Your task to perform on an android device: open device folders in google photos Image 0: 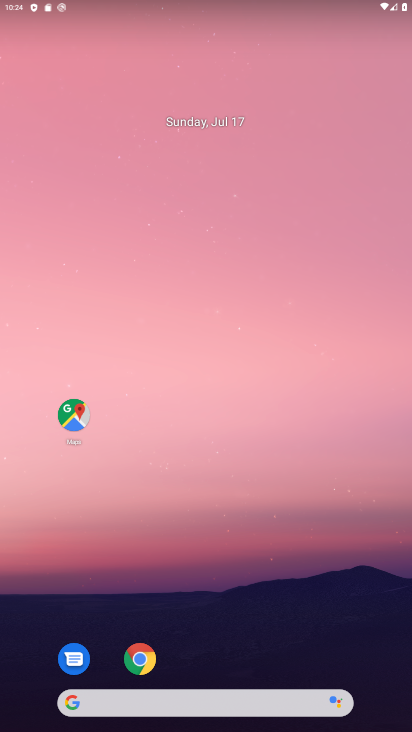
Step 0: drag from (273, 512) to (257, 4)
Your task to perform on an android device: open device folders in google photos Image 1: 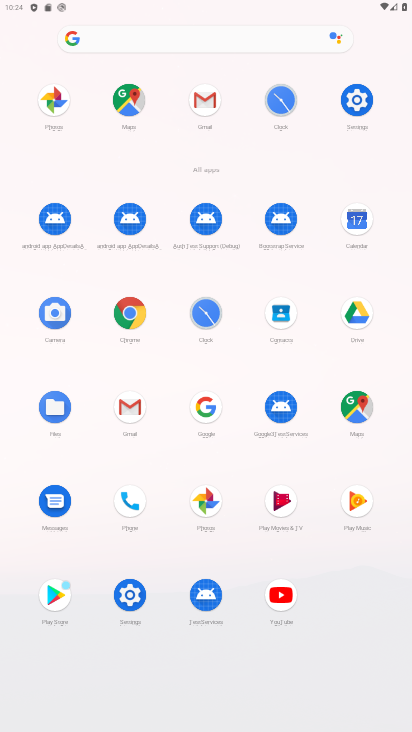
Step 1: click (215, 503)
Your task to perform on an android device: open device folders in google photos Image 2: 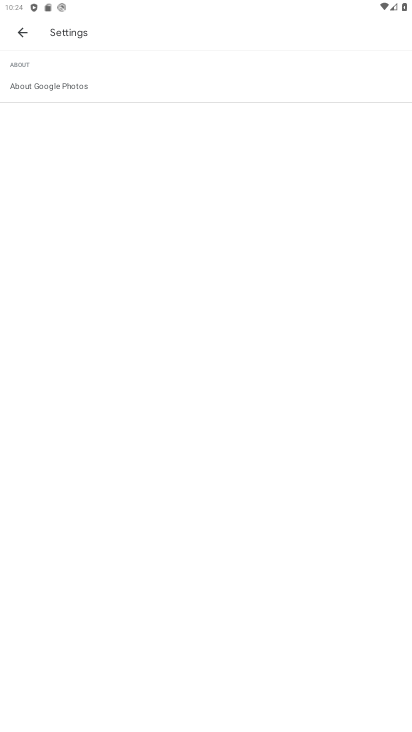
Step 2: click (16, 29)
Your task to perform on an android device: open device folders in google photos Image 3: 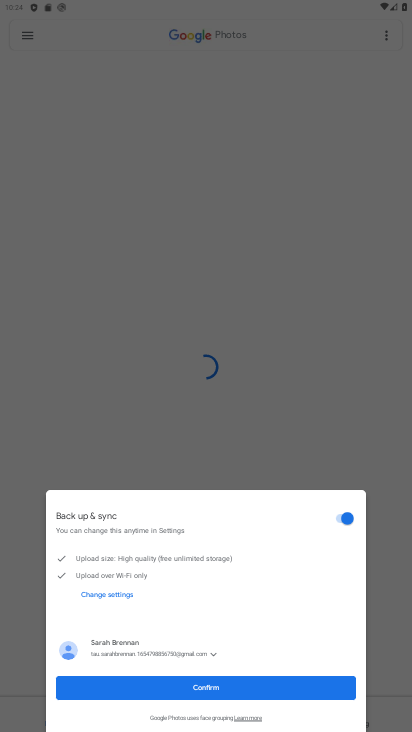
Step 3: click (215, 686)
Your task to perform on an android device: open device folders in google photos Image 4: 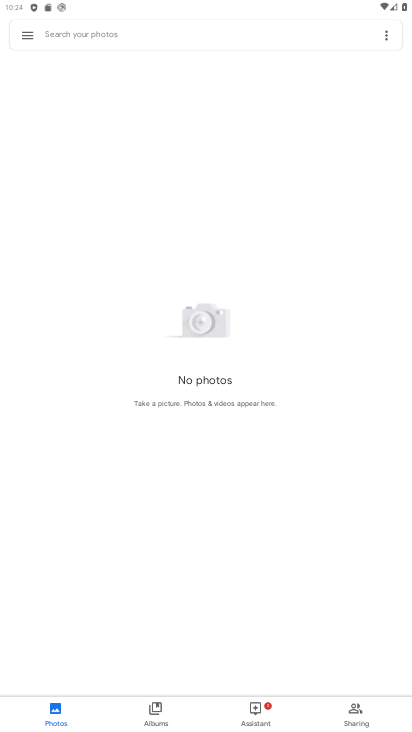
Step 4: click (22, 38)
Your task to perform on an android device: open device folders in google photos Image 5: 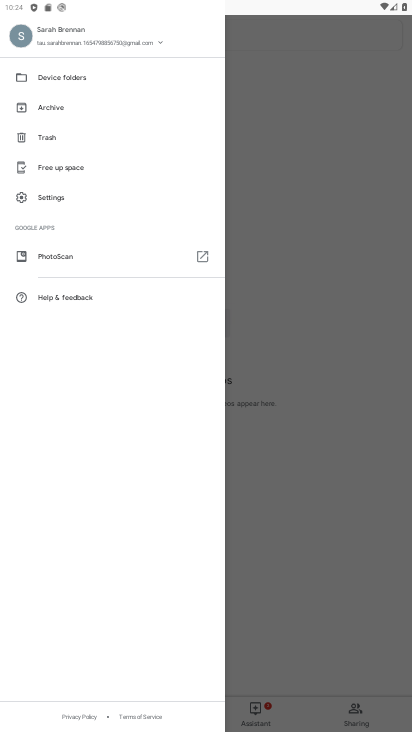
Step 5: click (70, 78)
Your task to perform on an android device: open device folders in google photos Image 6: 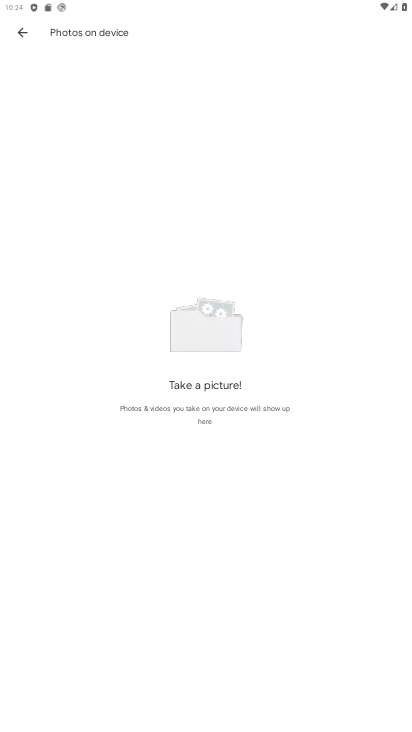
Step 6: task complete